Your task to perform on an android device: turn off smart reply in the gmail app Image 0: 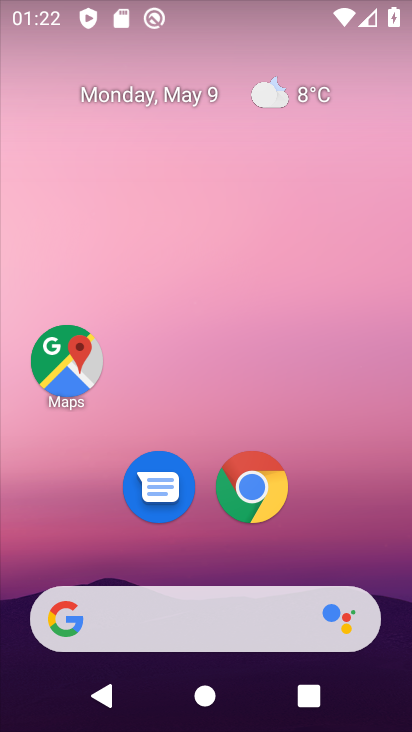
Step 0: drag from (340, 536) to (317, 113)
Your task to perform on an android device: turn off smart reply in the gmail app Image 1: 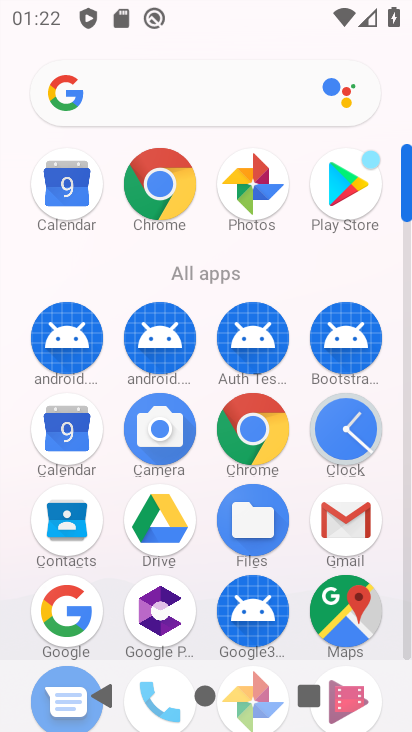
Step 1: click (321, 511)
Your task to perform on an android device: turn off smart reply in the gmail app Image 2: 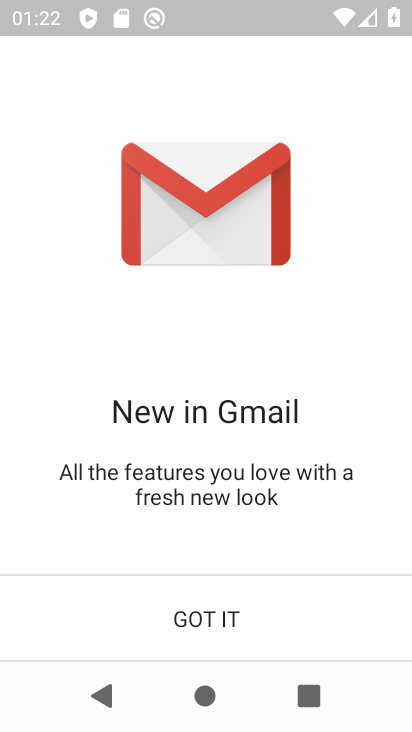
Step 2: click (242, 613)
Your task to perform on an android device: turn off smart reply in the gmail app Image 3: 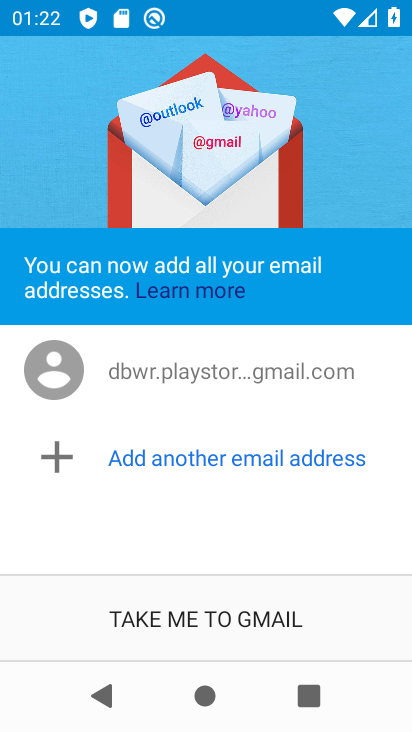
Step 3: click (206, 604)
Your task to perform on an android device: turn off smart reply in the gmail app Image 4: 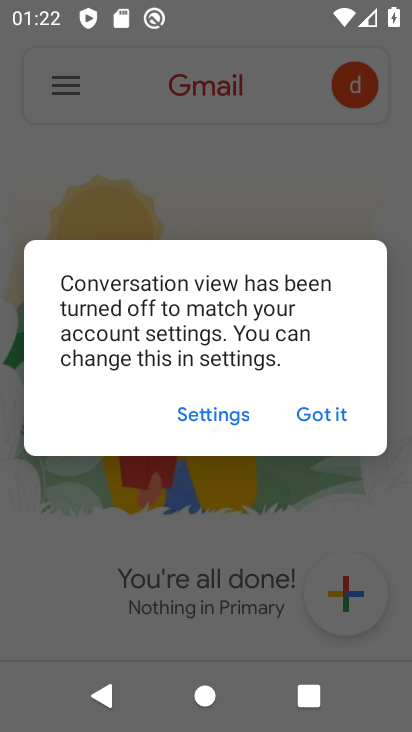
Step 4: click (326, 423)
Your task to perform on an android device: turn off smart reply in the gmail app Image 5: 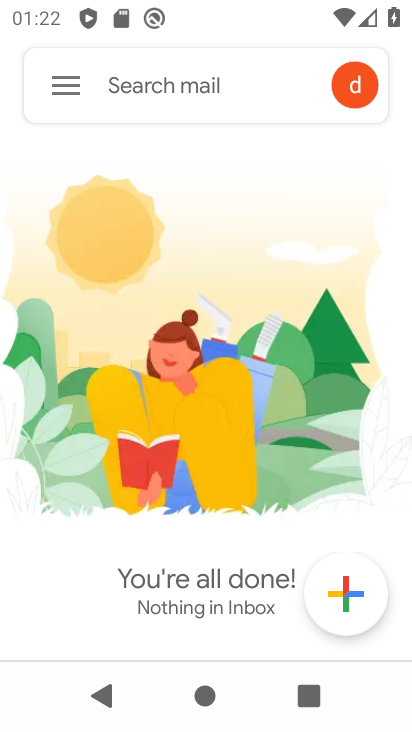
Step 5: click (58, 60)
Your task to perform on an android device: turn off smart reply in the gmail app Image 6: 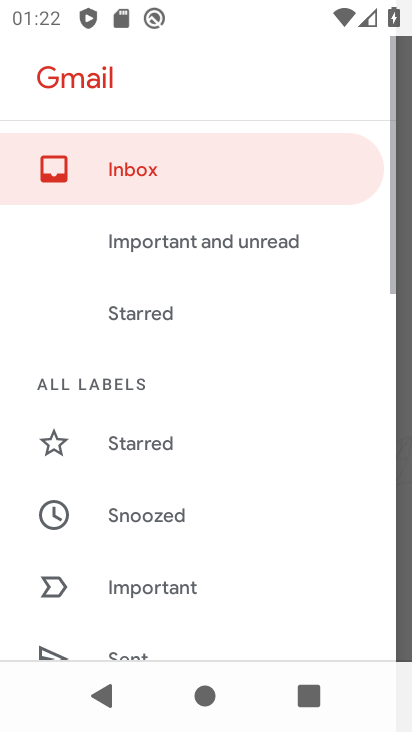
Step 6: drag from (169, 633) to (169, 219)
Your task to perform on an android device: turn off smart reply in the gmail app Image 7: 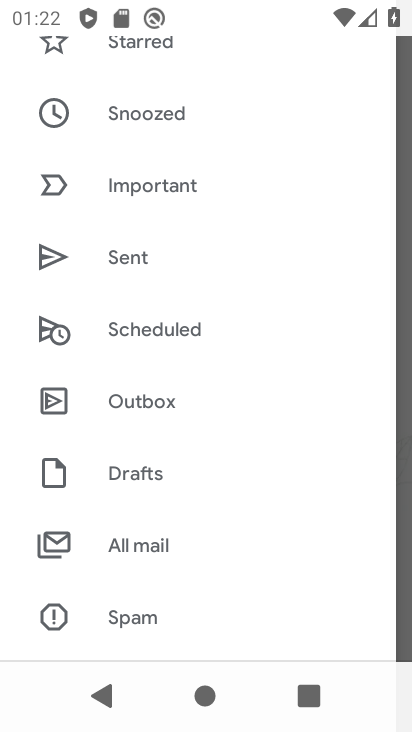
Step 7: drag from (141, 530) to (157, 59)
Your task to perform on an android device: turn off smart reply in the gmail app Image 8: 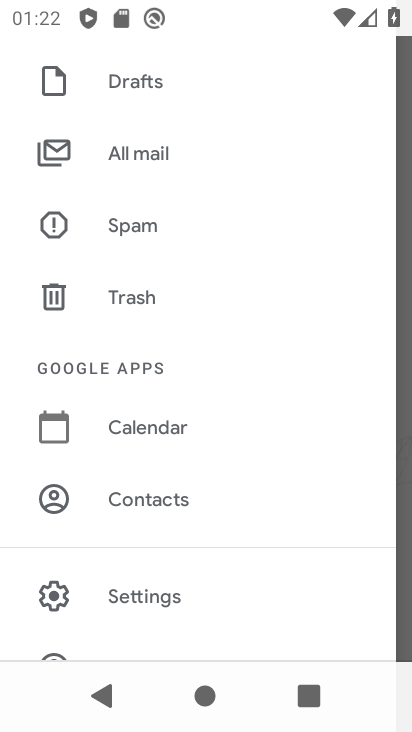
Step 8: click (178, 524)
Your task to perform on an android device: turn off smart reply in the gmail app Image 9: 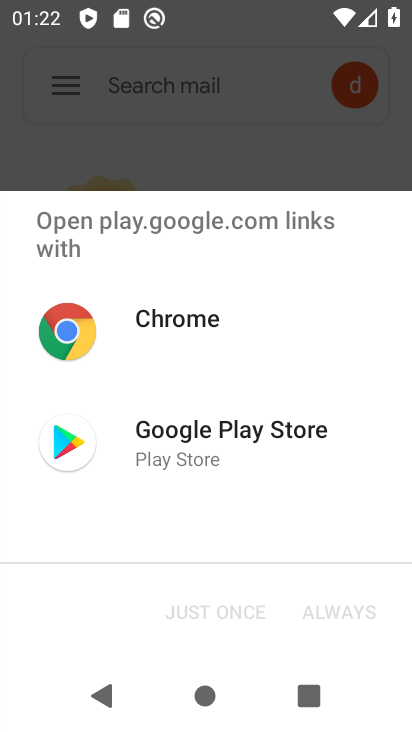
Step 9: click (97, 120)
Your task to perform on an android device: turn off smart reply in the gmail app Image 10: 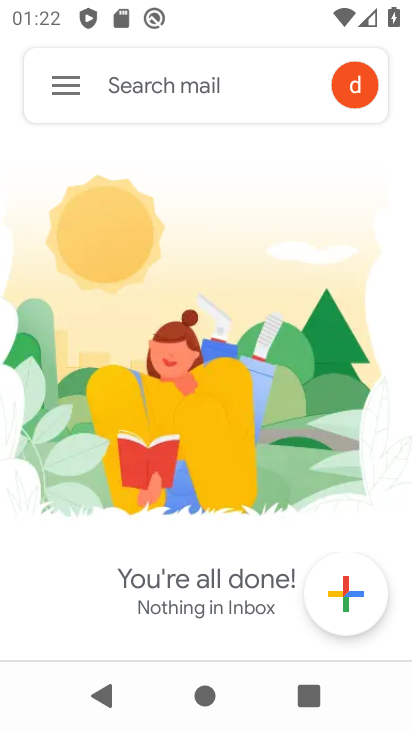
Step 10: click (51, 84)
Your task to perform on an android device: turn off smart reply in the gmail app Image 11: 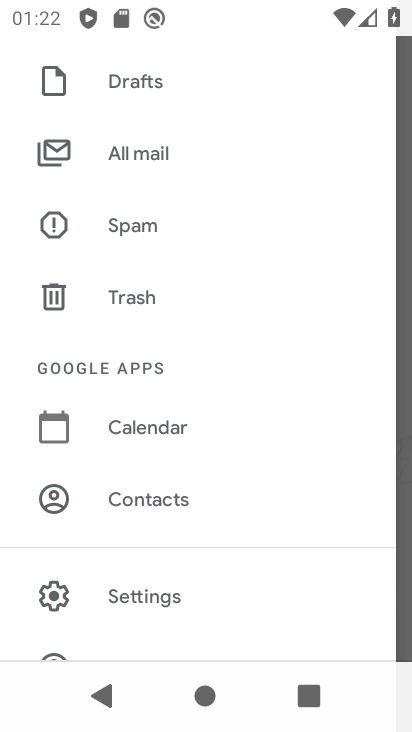
Step 11: click (155, 607)
Your task to perform on an android device: turn off smart reply in the gmail app Image 12: 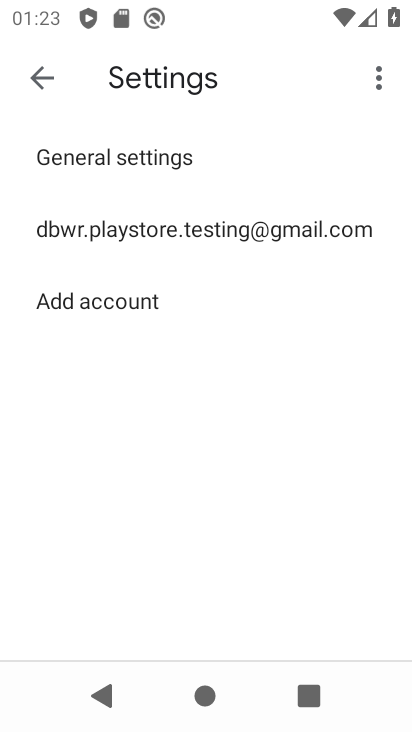
Step 12: click (146, 236)
Your task to perform on an android device: turn off smart reply in the gmail app Image 13: 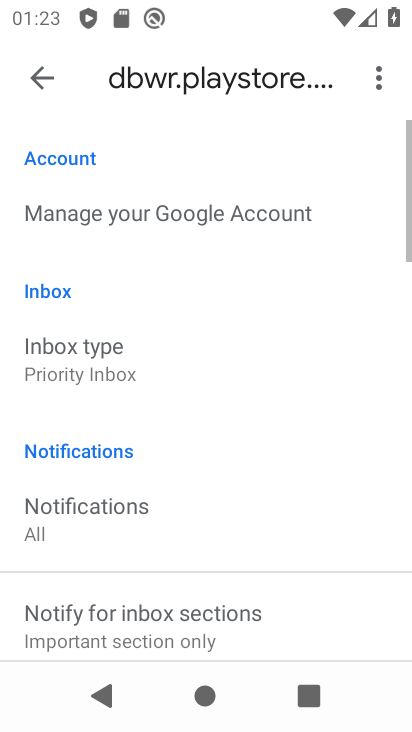
Step 13: drag from (204, 662) to (171, 136)
Your task to perform on an android device: turn off smart reply in the gmail app Image 14: 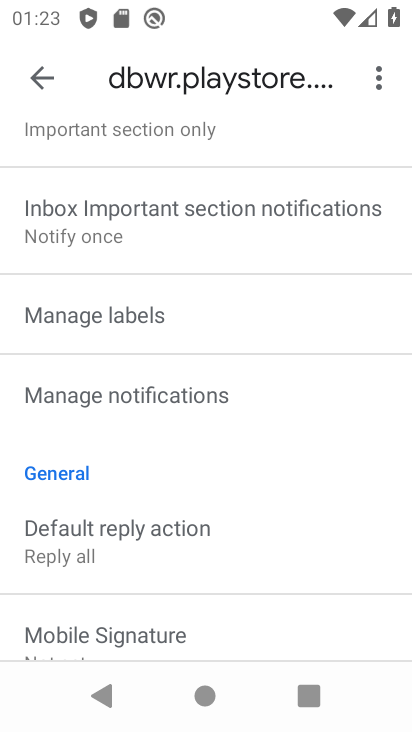
Step 14: drag from (199, 594) to (169, 197)
Your task to perform on an android device: turn off smart reply in the gmail app Image 15: 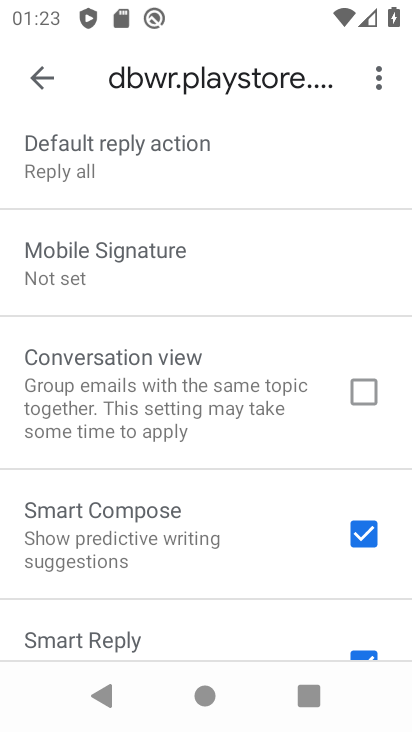
Step 15: drag from (270, 544) to (258, 195)
Your task to perform on an android device: turn off smart reply in the gmail app Image 16: 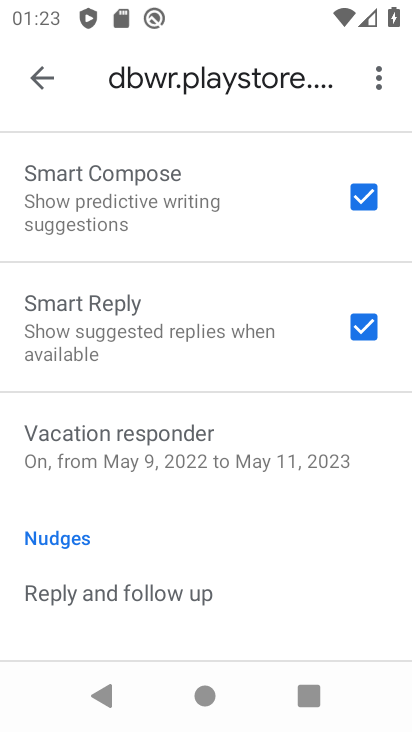
Step 16: click (364, 327)
Your task to perform on an android device: turn off smart reply in the gmail app Image 17: 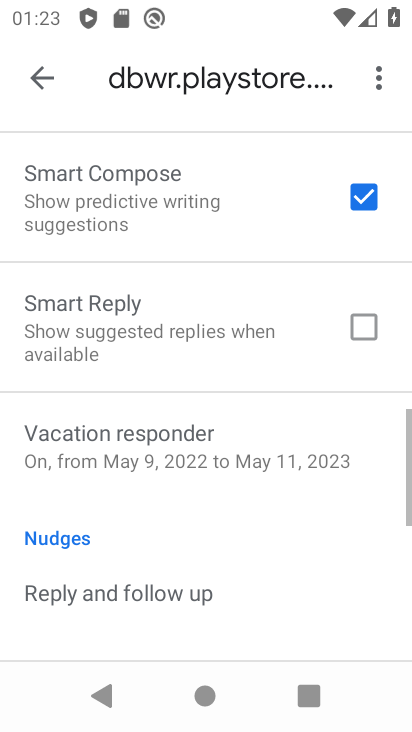
Step 17: task complete